Your task to perform on an android device: change the clock display to digital Image 0: 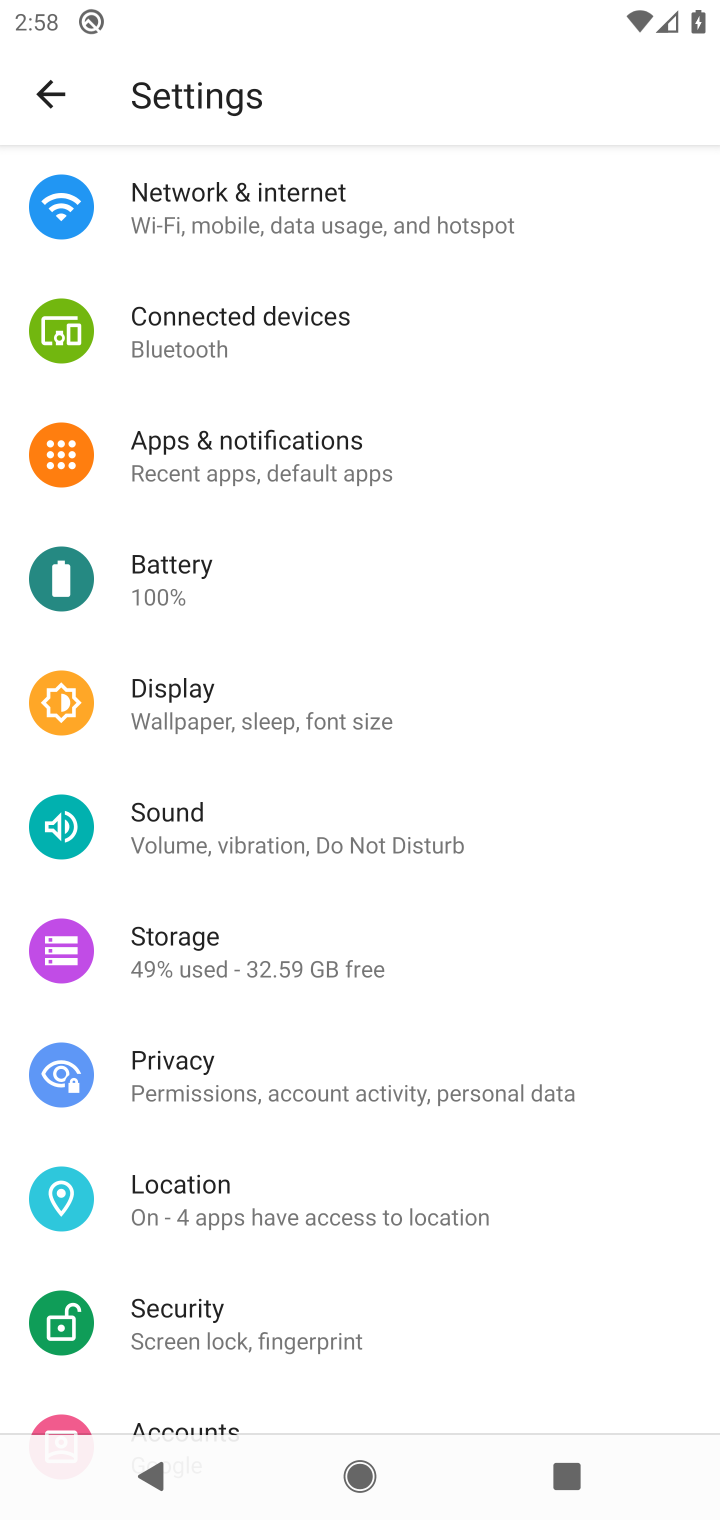
Step 0: press home button
Your task to perform on an android device: change the clock display to digital Image 1: 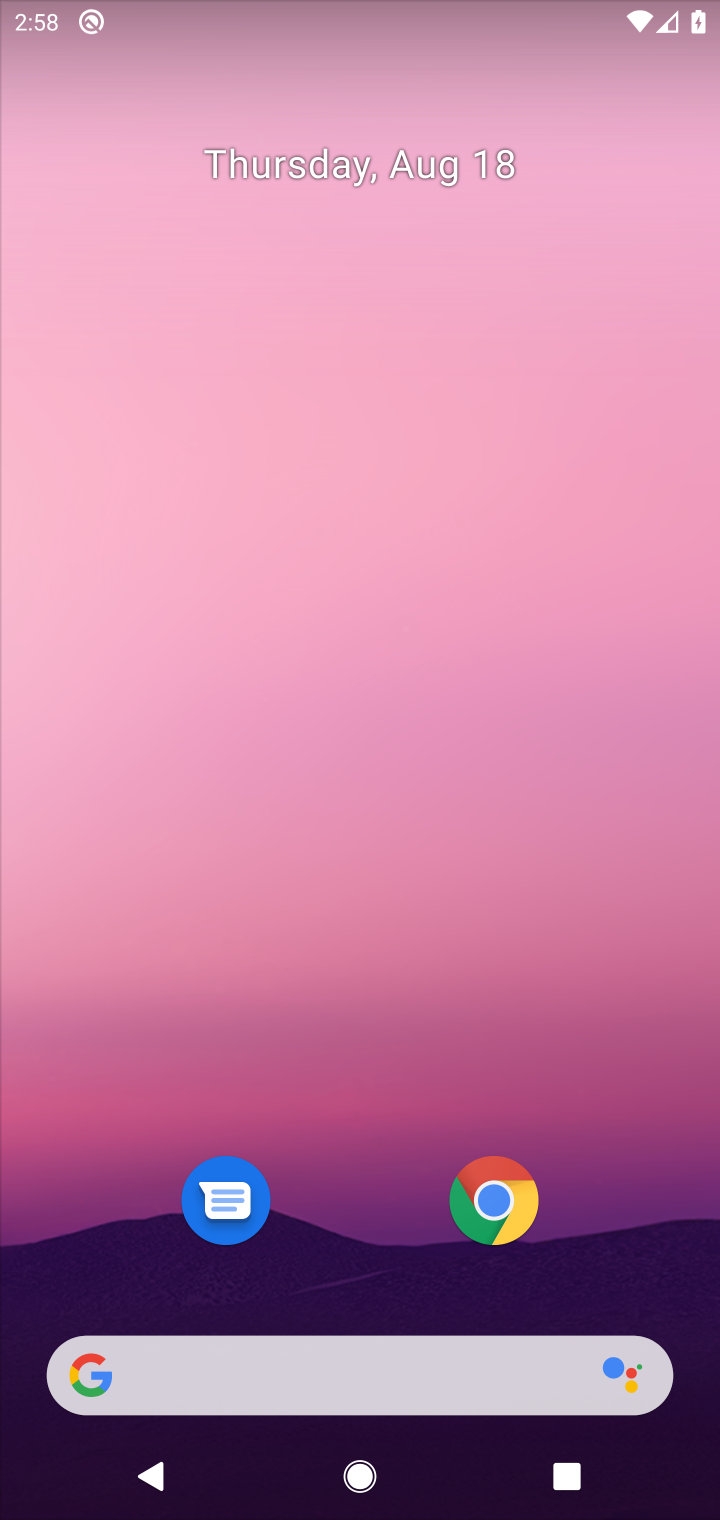
Step 1: drag from (317, 1008) to (360, 281)
Your task to perform on an android device: change the clock display to digital Image 2: 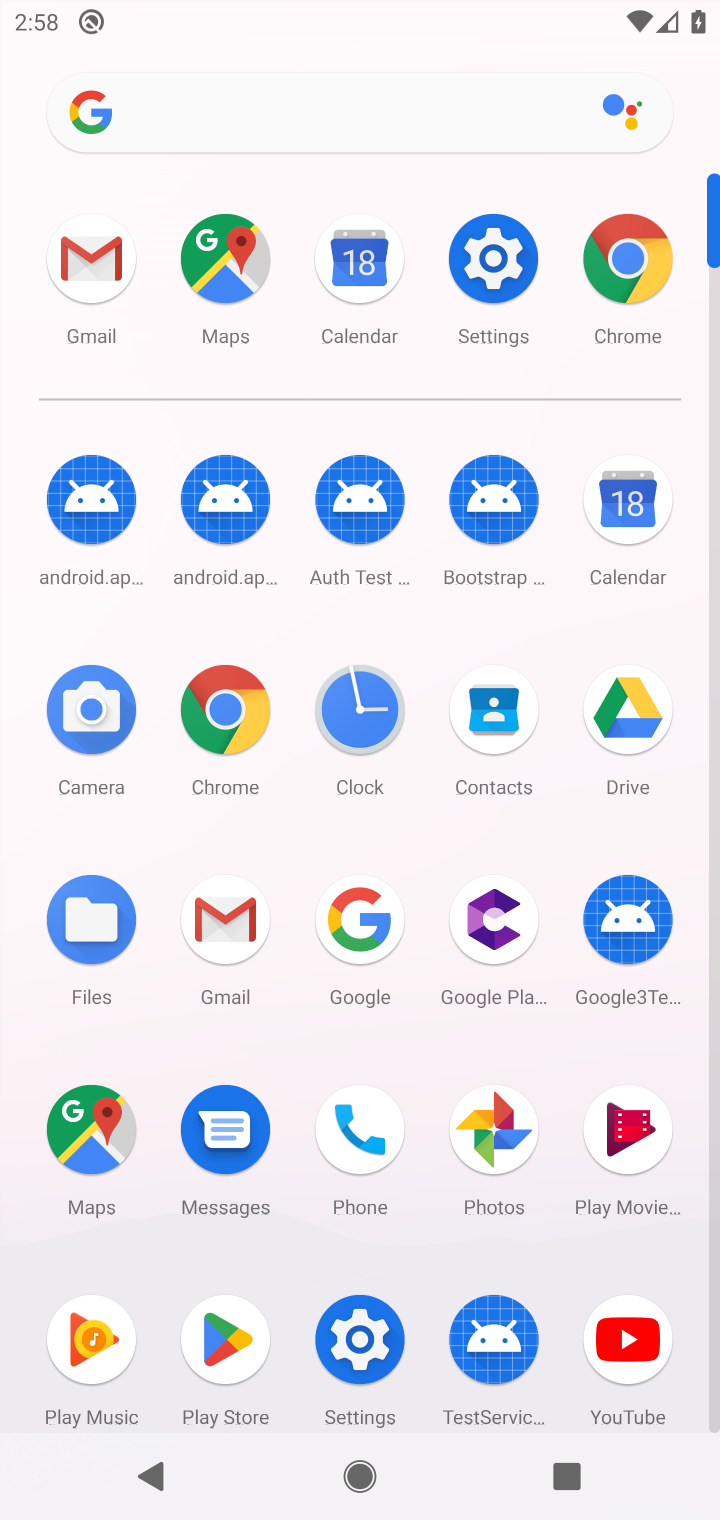
Step 2: click (368, 714)
Your task to perform on an android device: change the clock display to digital Image 3: 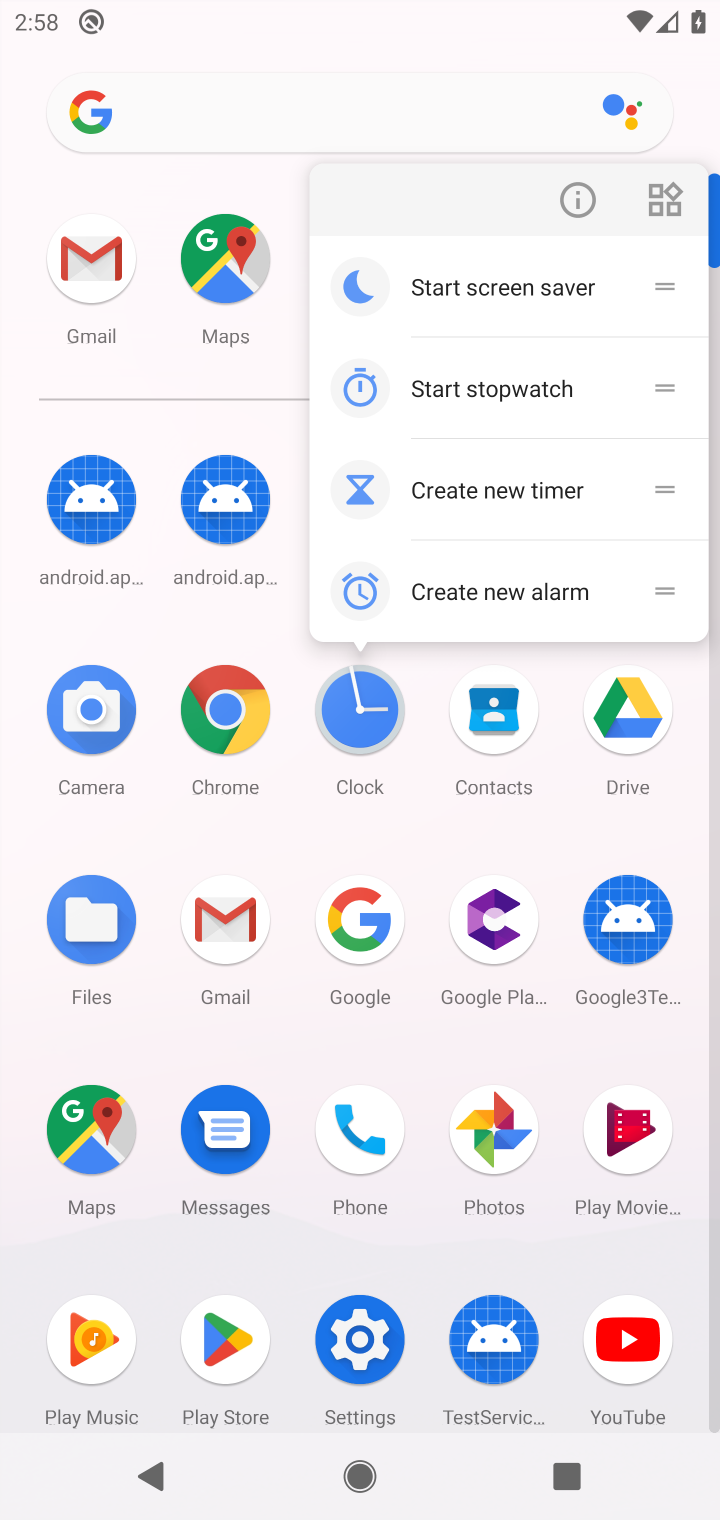
Step 3: click (357, 690)
Your task to perform on an android device: change the clock display to digital Image 4: 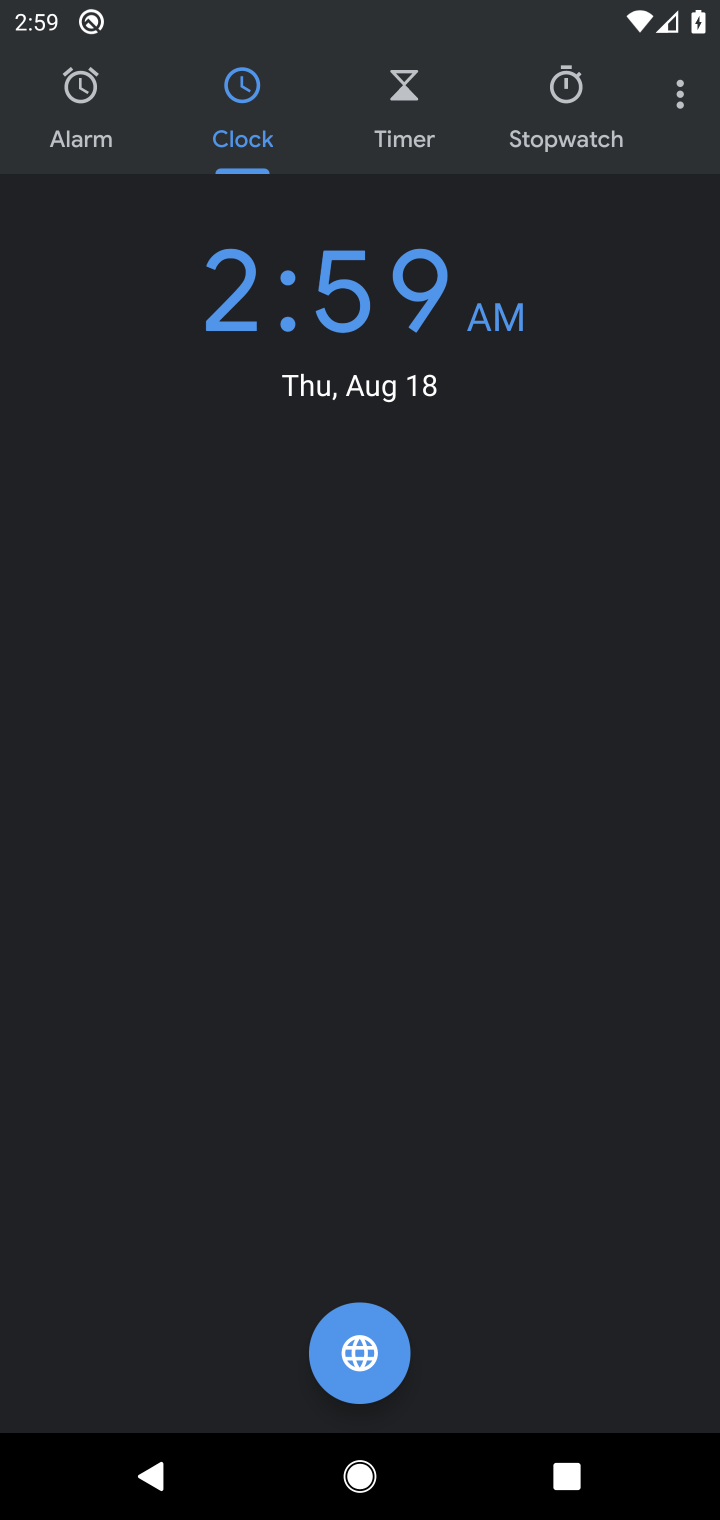
Step 4: click (685, 88)
Your task to perform on an android device: change the clock display to digital Image 5: 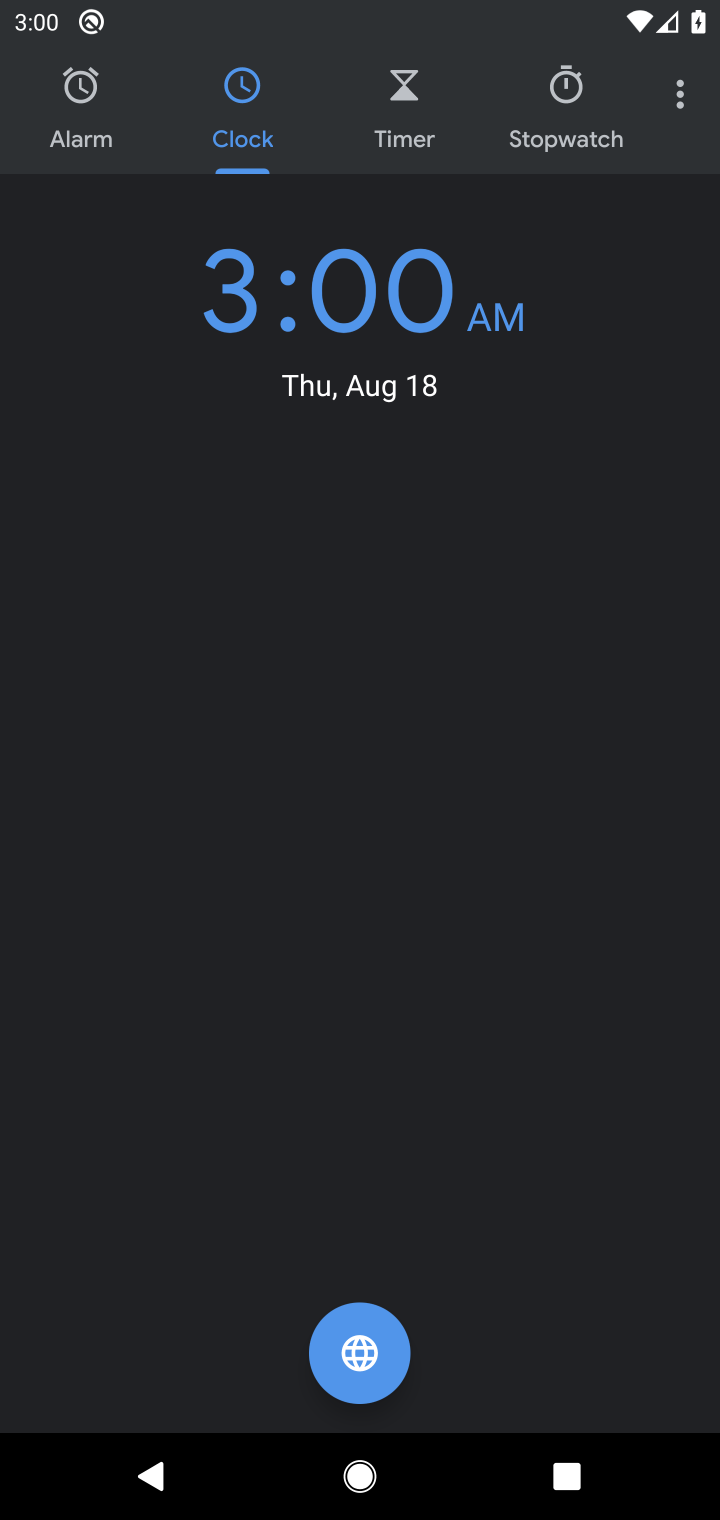
Step 5: click (665, 100)
Your task to perform on an android device: change the clock display to digital Image 6: 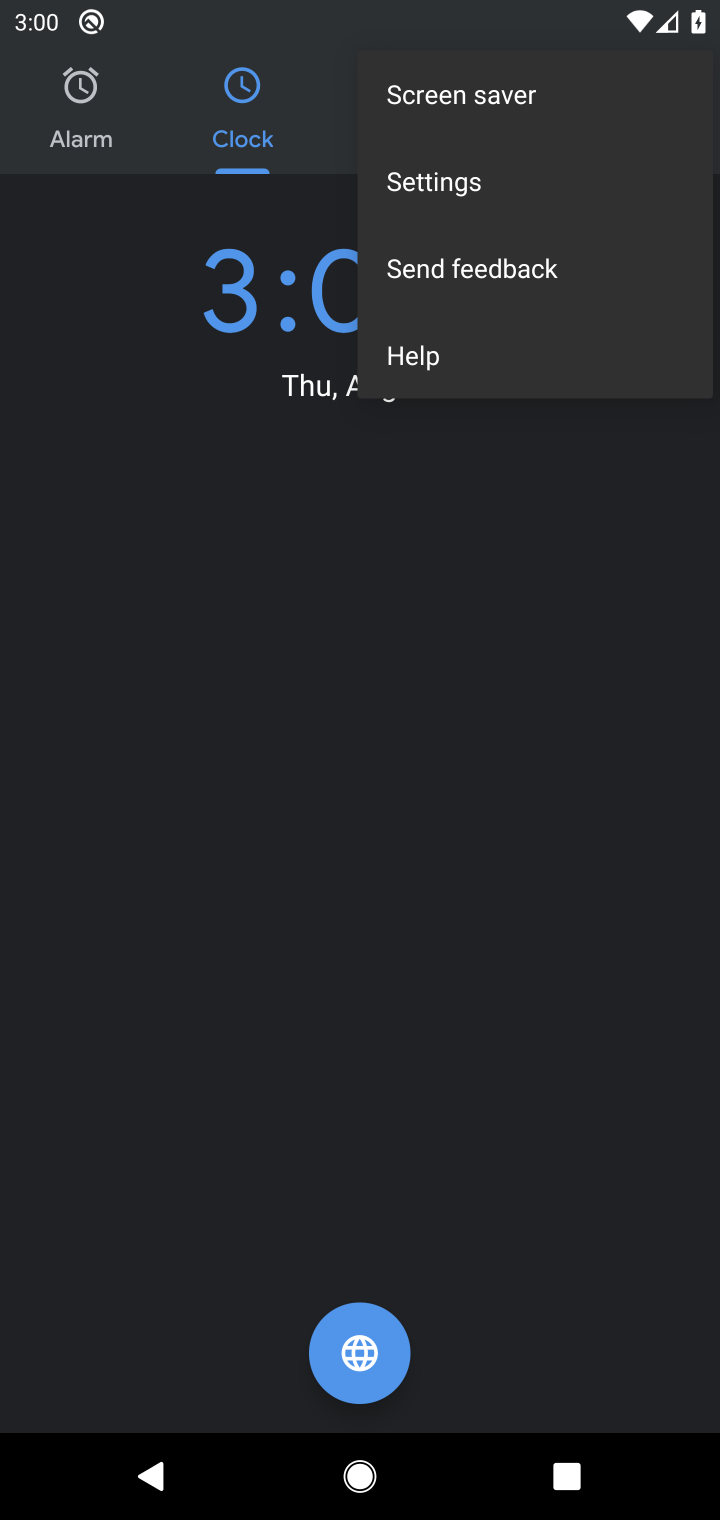
Step 6: click (449, 188)
Your task to perform on an android device: change the clock display to digital Image 7: 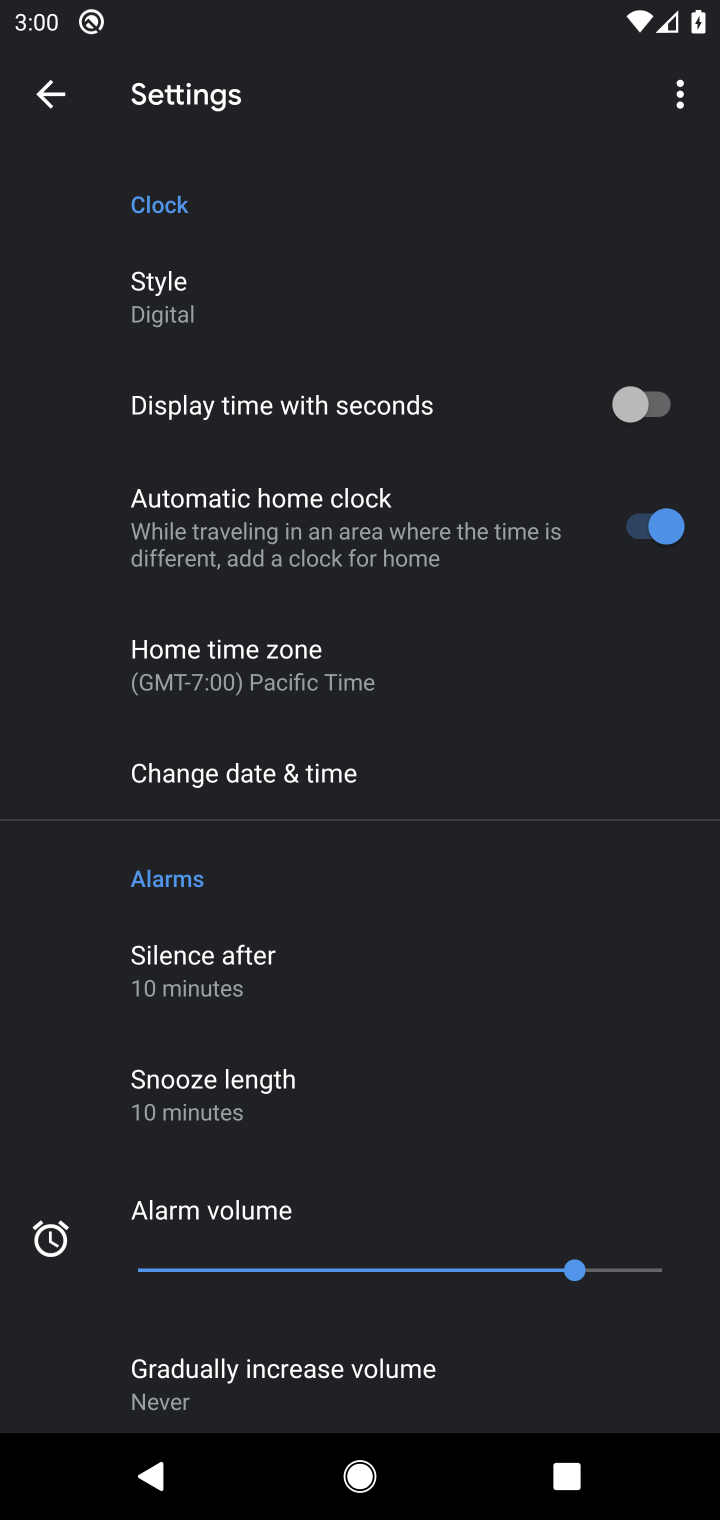
Step 7: click (238, 320)
Your task to perform on an android device: change the clock display to digital Image 8: 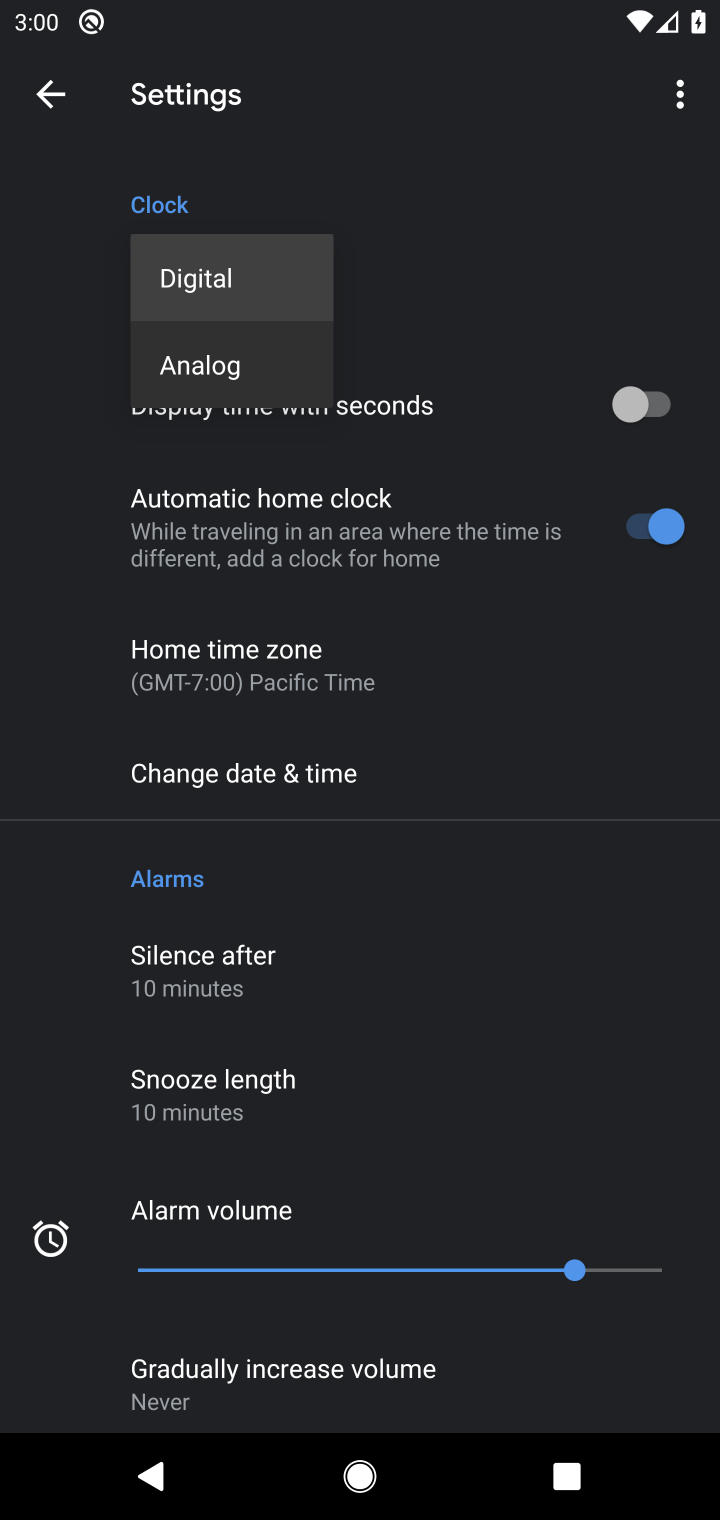
Step 8: task complete